Your task to perform on an android device: Search for razer blade on bestbuy, select the first entry, add it to the cart, then select checkout. Image 0: 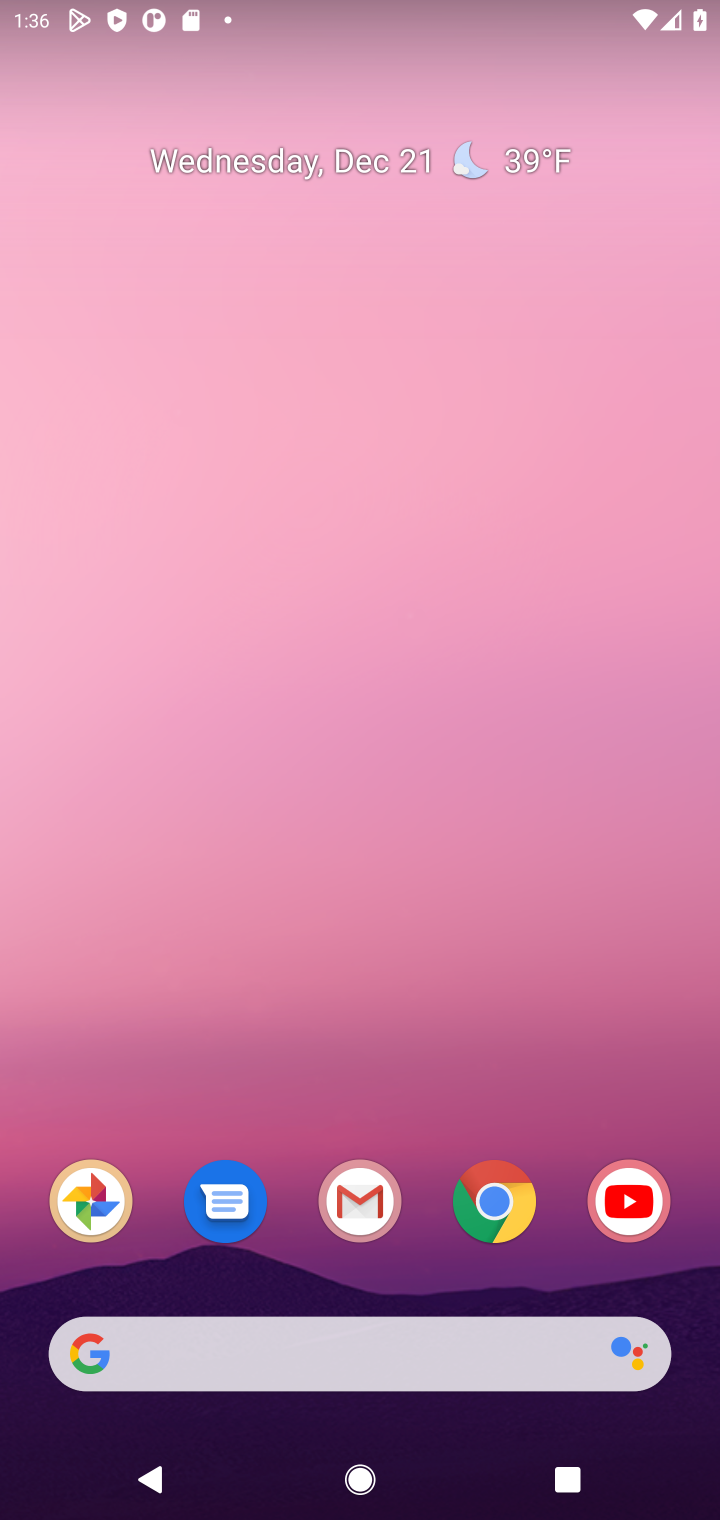
Step 0: click (503, 1209)
Your task to perform on an android device: Search for razer blade on bestbuy, select the first entry, add it to the cart, then select checkout. Image 1: 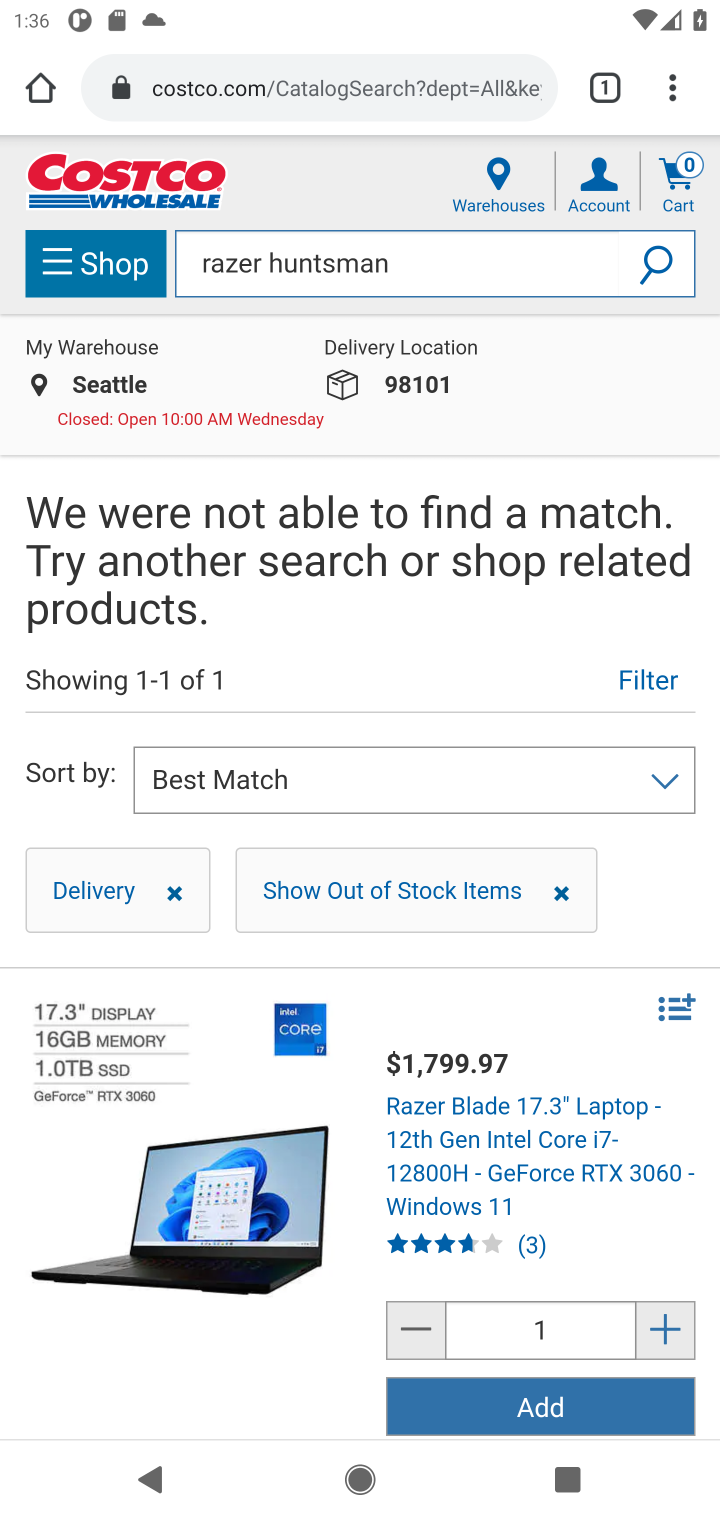
Step 1: click (234, 90)
Your task to perform on an android device: Search for razer blade on bestbuy, select the first entry, add it to the cart, then select checkout. Image 2: 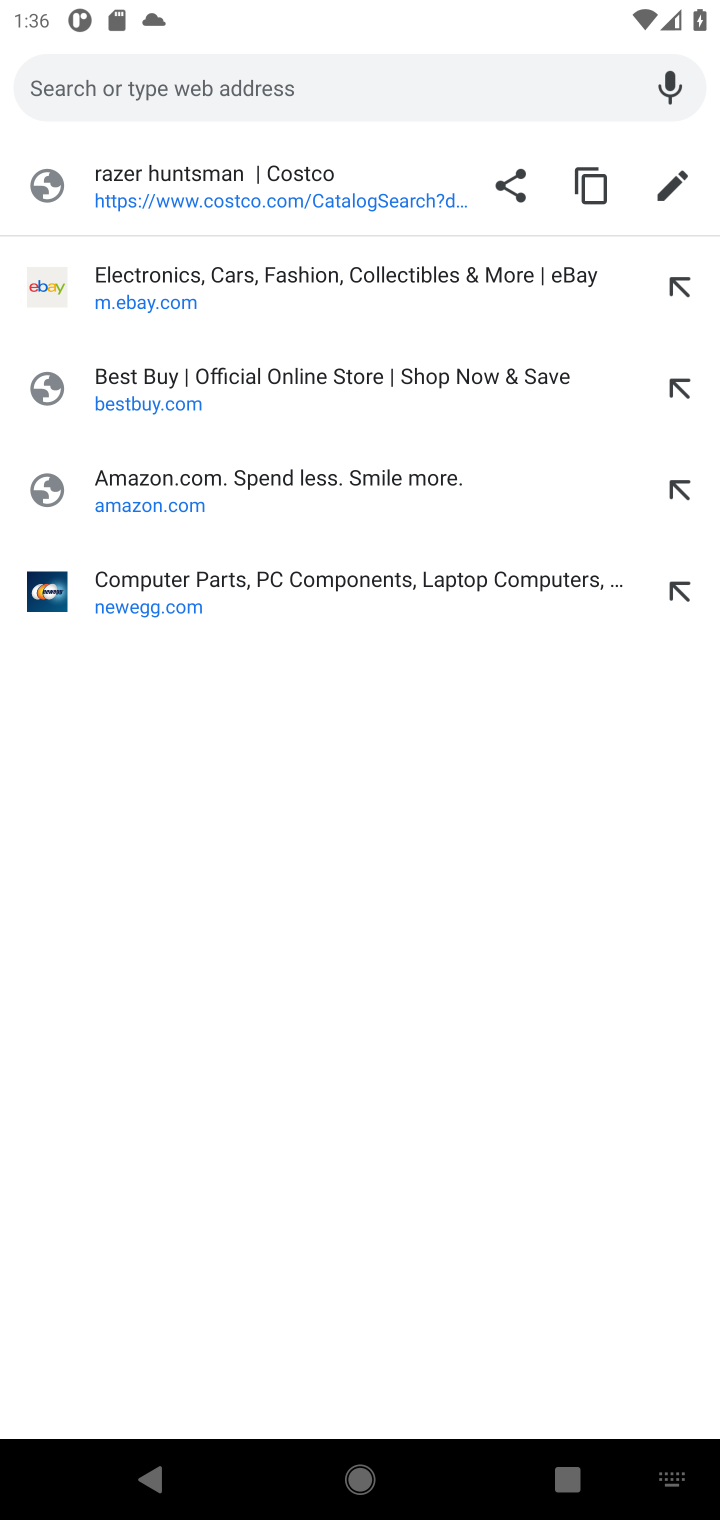
Step 2: click (135, 400)
Your task to perform on an android device: Search for razer blade on bestbuy, select the first entry, add it to the cart, then select checkout. Image 3: 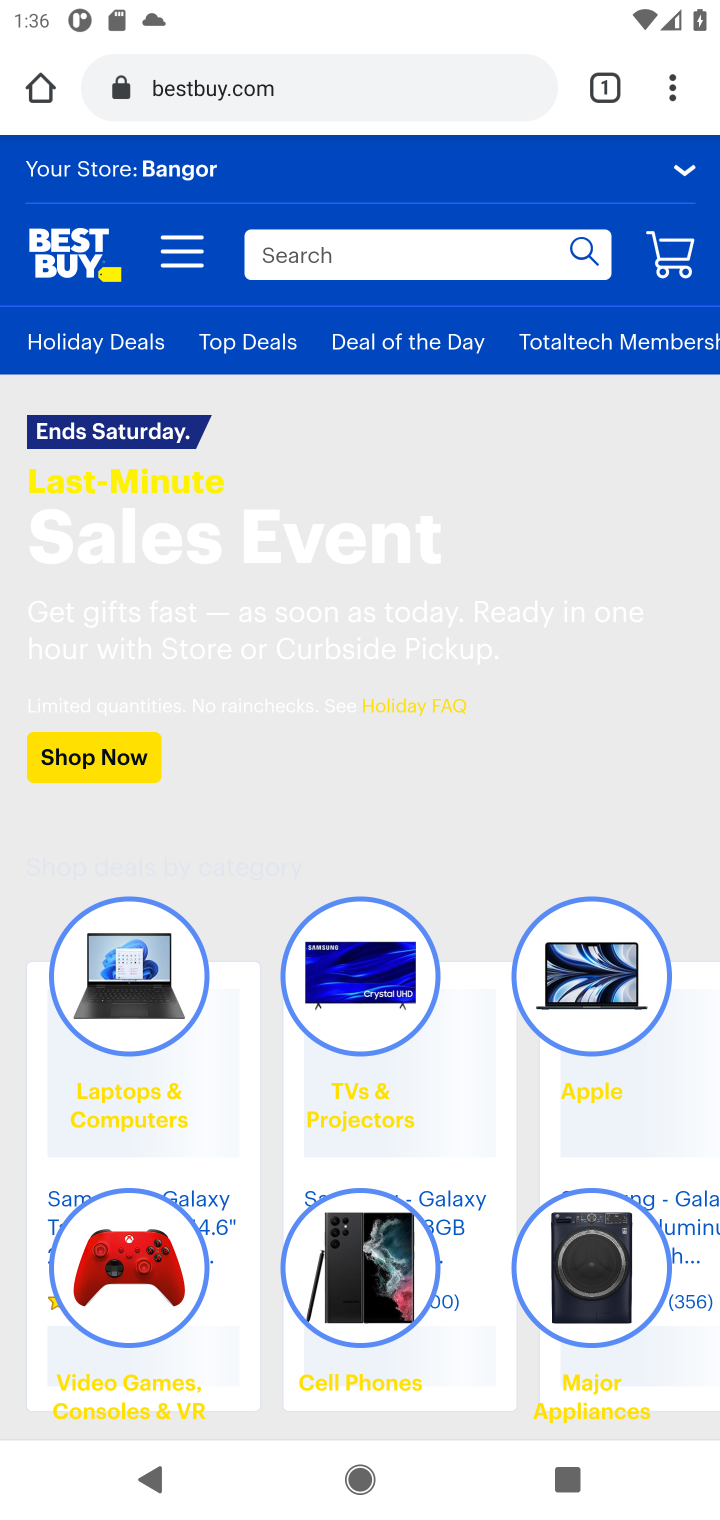
Step 3: click (292, 258)
Your task to perform on an android device: Search for razer blade on bestbuy, select the first entry, add it to the cart, then select checkout. Image 4: 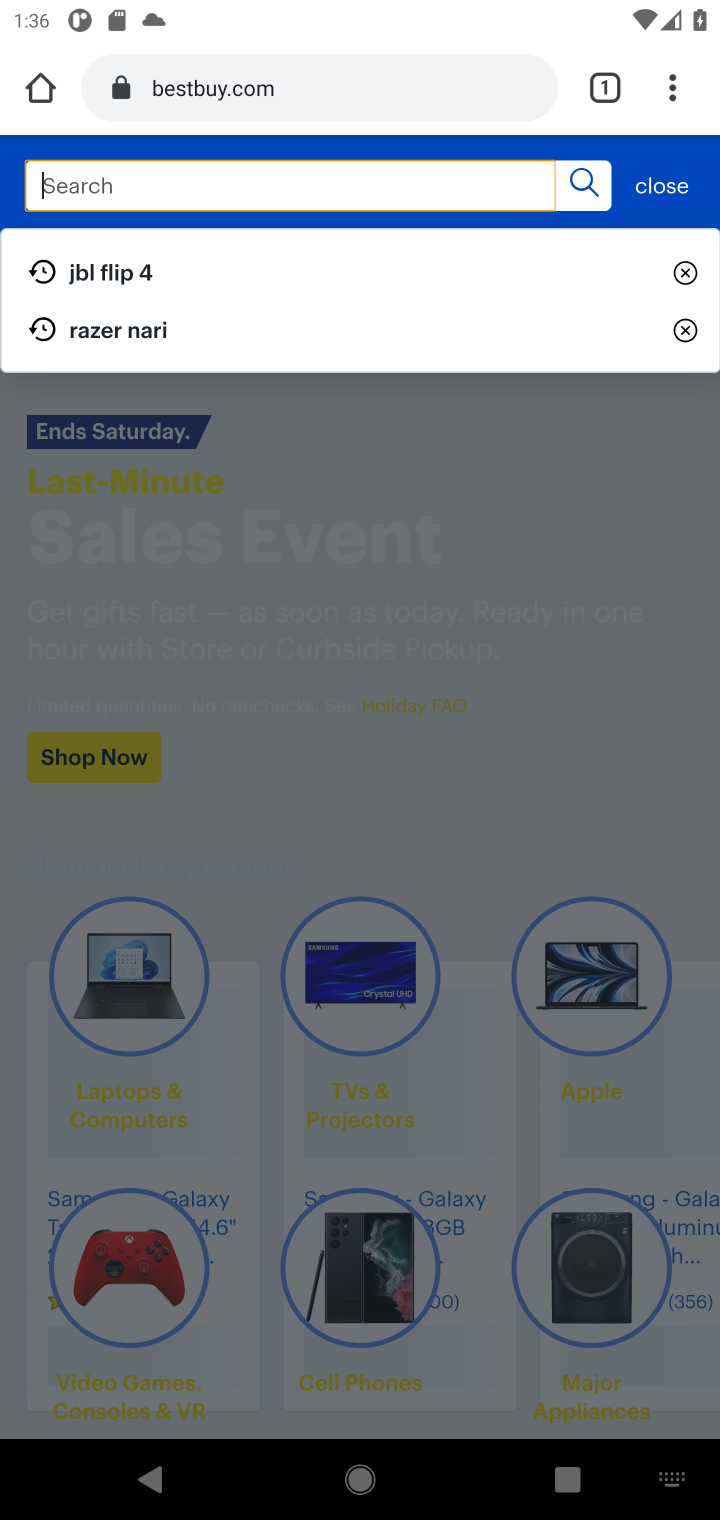
Step 4: type "razer blade"
Your task to perform on an android device: Search for razer blade on bestbuy, select the first entry, add it to the cart, then select checkout. Image 5: 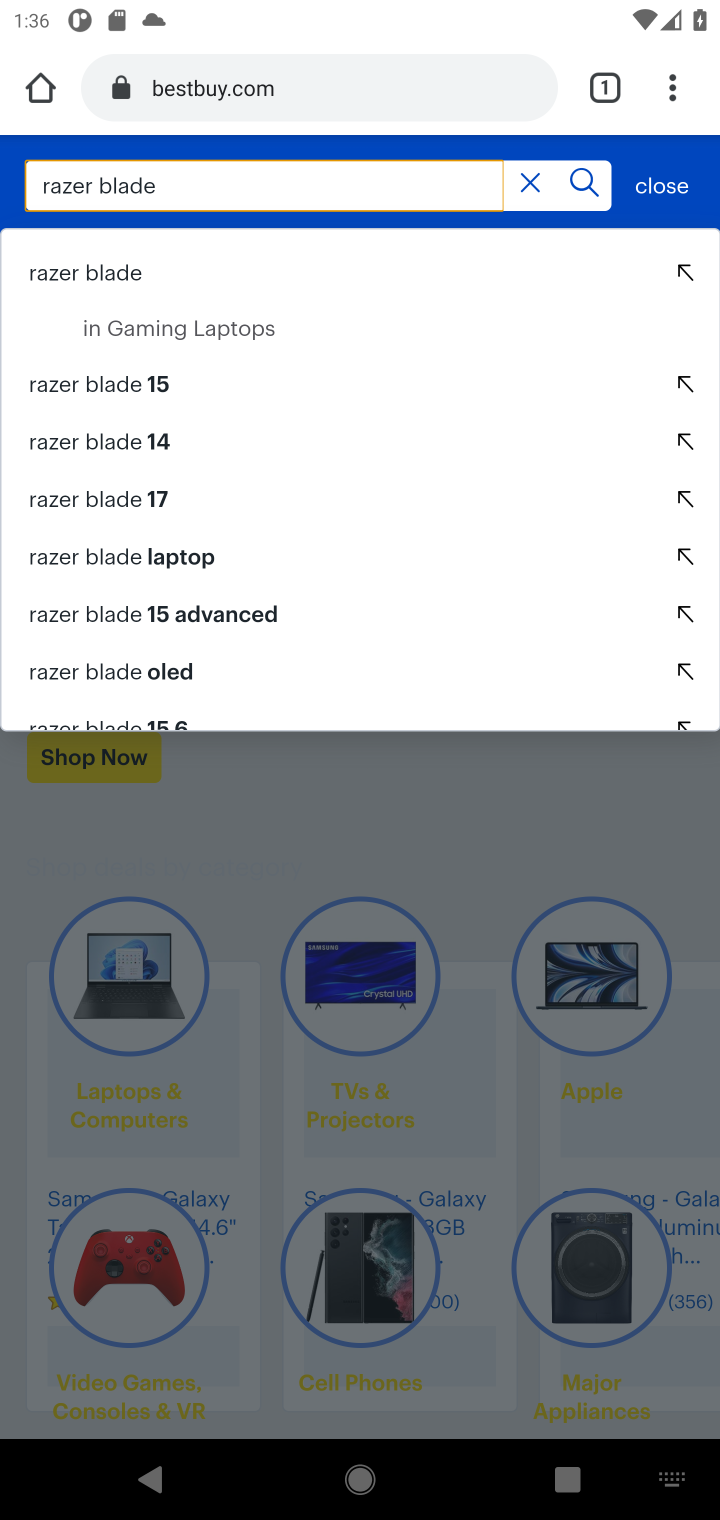
Step 5: click (116, 285)
Your task to perform on an android device: Search for razer blade on bestbuy, select the first entry, add it to the cart, then select checkout. Image 6: 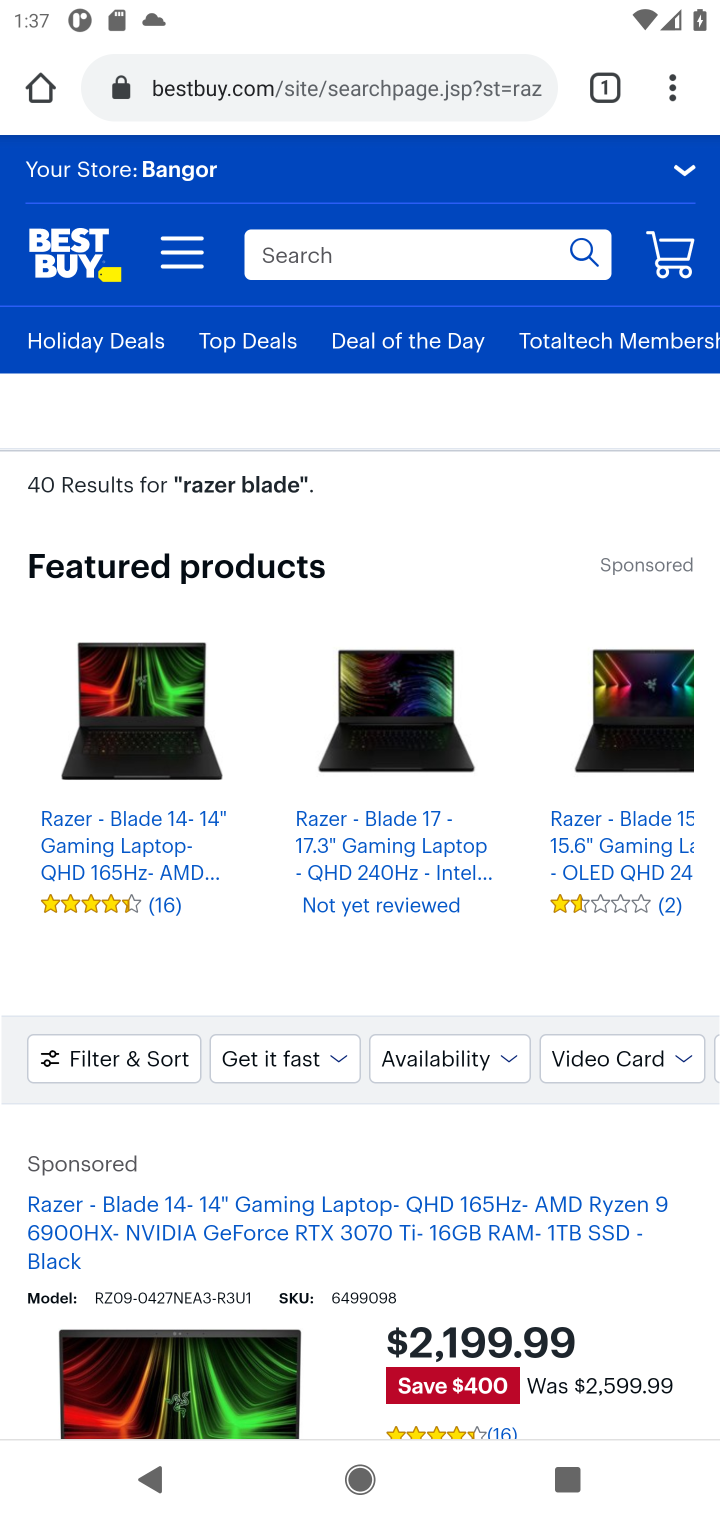
Step 6: drag from (269, 850) to (267, 550)
Your task to perform on an android device: Search for razer blade on bestbuy, select the first entry, add it to the cart, then select checkout. Image 7: 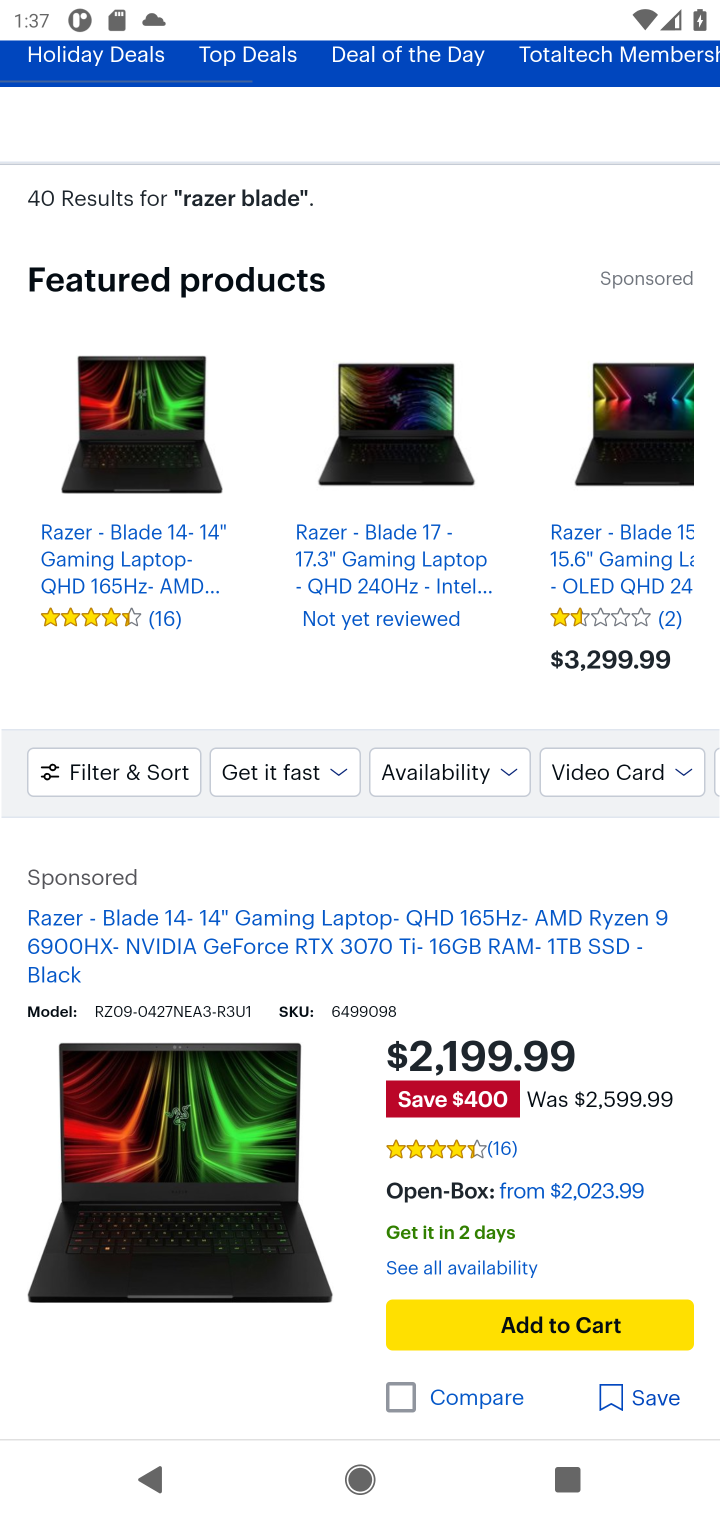
Step 7: drag from (356, 1097) to (341, 770)
Your task to perform on an android device: Search for razer blade on bestbuy, select the first entry, add it to the cart, then select checkout. Image 8: 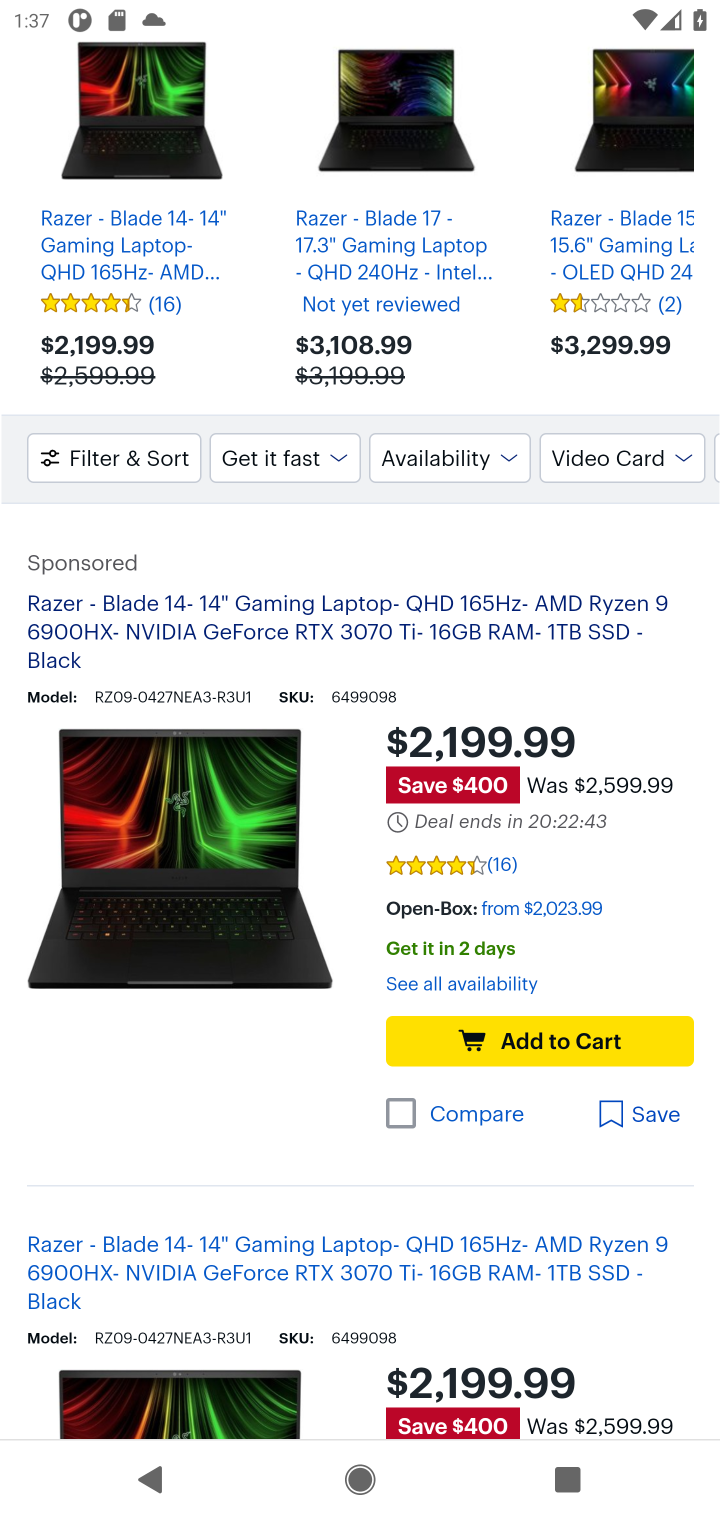
Step 8: click (562, 1050)
Your task to perform on an android device: Search for razer blade on bestbuy, select the first entry, add it to the cart, then select checkout. Image 9: 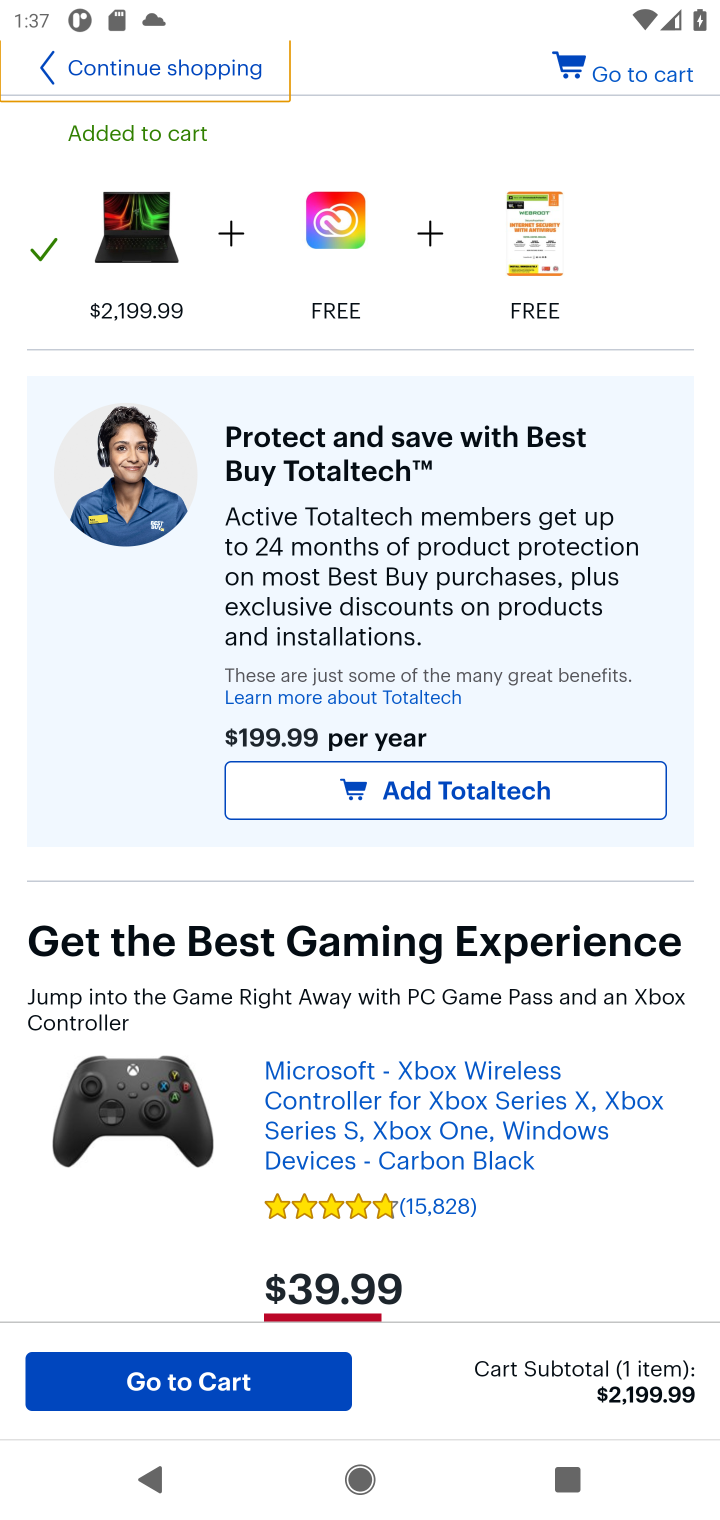
Step 9: click (633, 75)
Your task to perform on an android device: Search for razer blade on bestbuy, select the first entry, add it to the cart, then select checkout. Image 10: 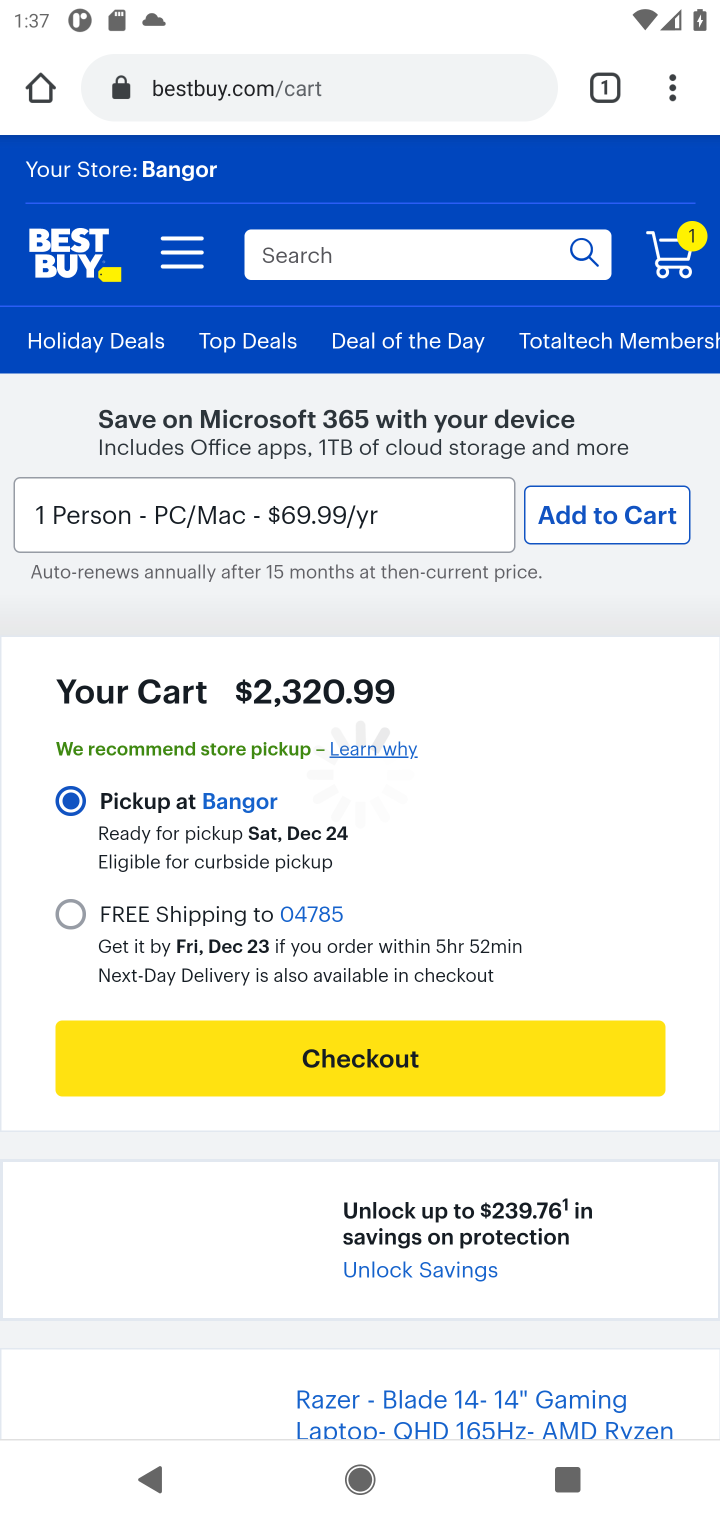
Step 10: click (298, 1042)
Your task to perform on an android device: Search for razer blade on bestbuy, select the first entry, add it to the cart, then select checkout. Image 11: 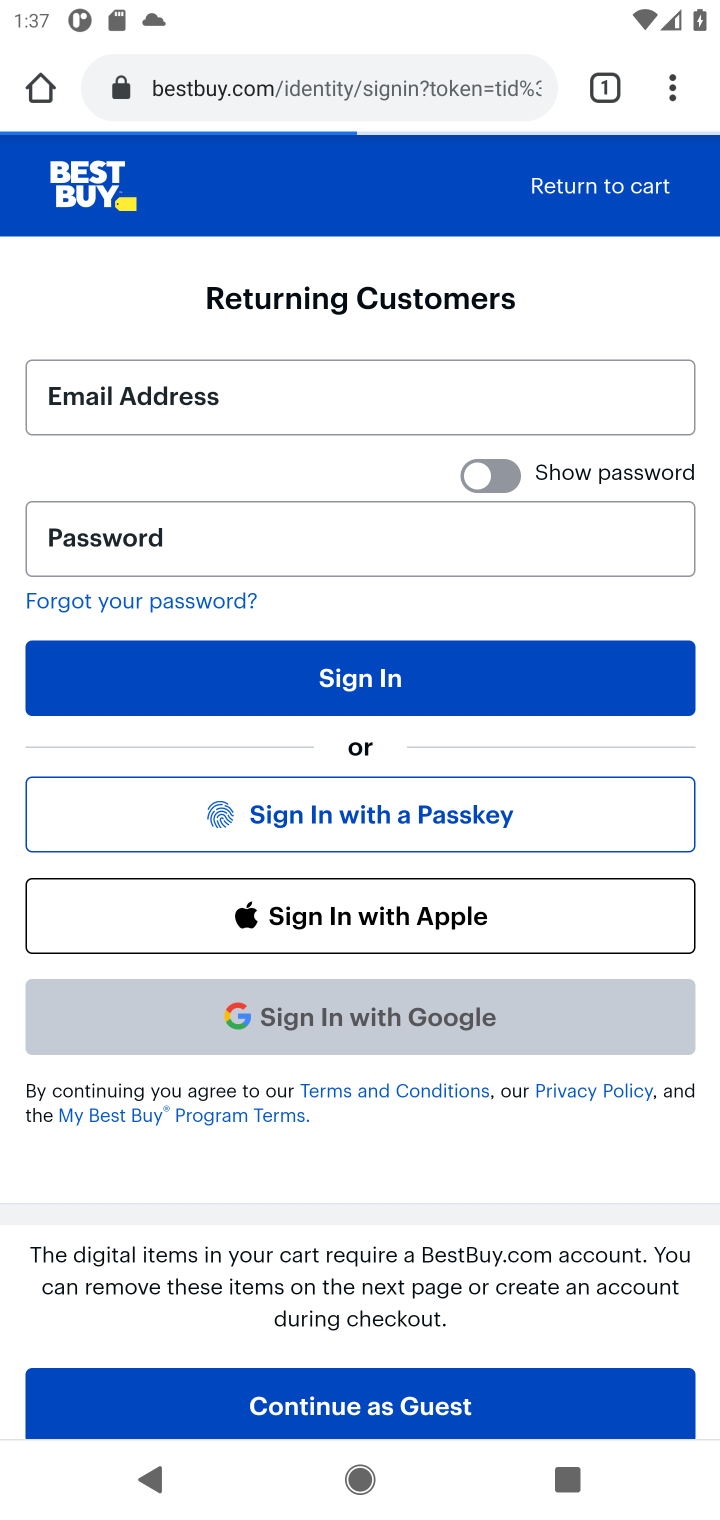
Step 11: task complete